Your task to perform on an android device: toggle improve location accuracy Image 0: 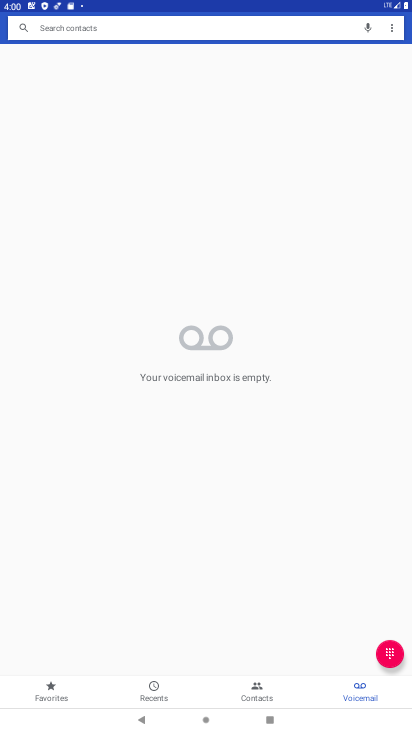
Step 0: press home button
Your task to perform on an android device: toggle improve location accuracy Image 1: 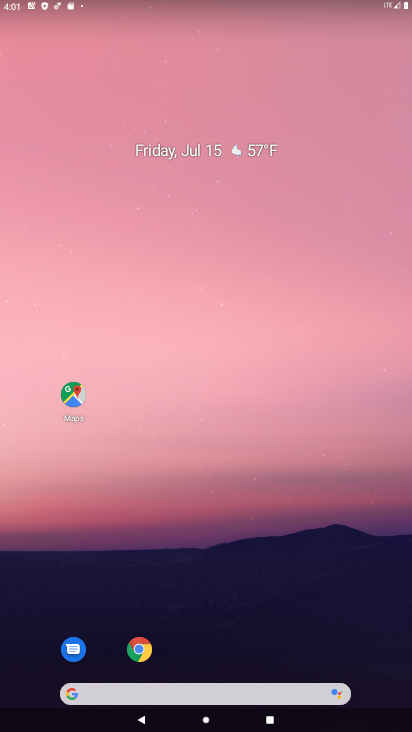
Step 1: drag from (231, 670) to (204, 175)
Your task to perform on an android device: toggle improve location accuracy Image 2: 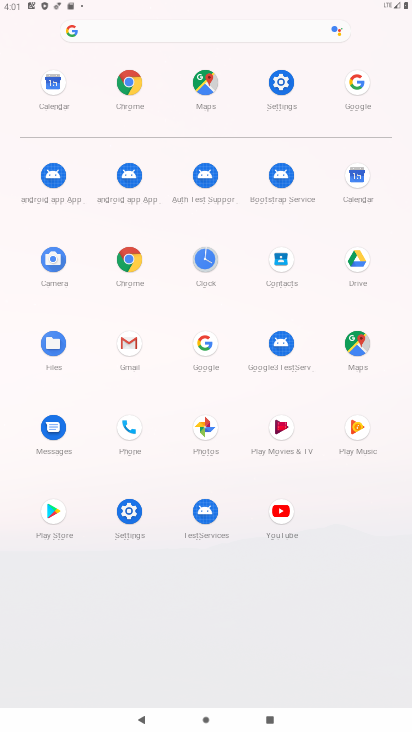
Step 2: click (282, 81)
Your task to perform on an android device: toggle improve location accuracy Image 3: 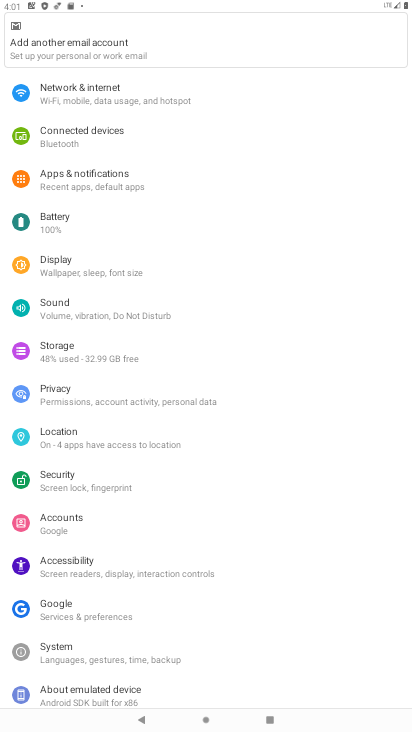
Step 3: click (54, 435)
Your task to perform on an android device: toggle improve location accuracy Image 4: 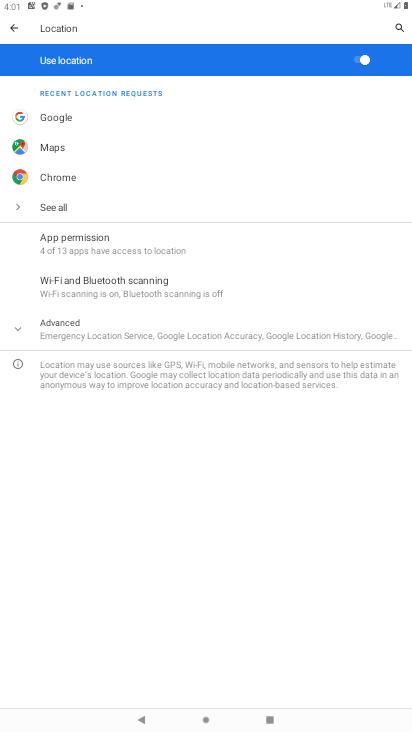
Step 4: click (107, 337)
Your task to perform on an android device: toggle improve location accuracy Image 5: 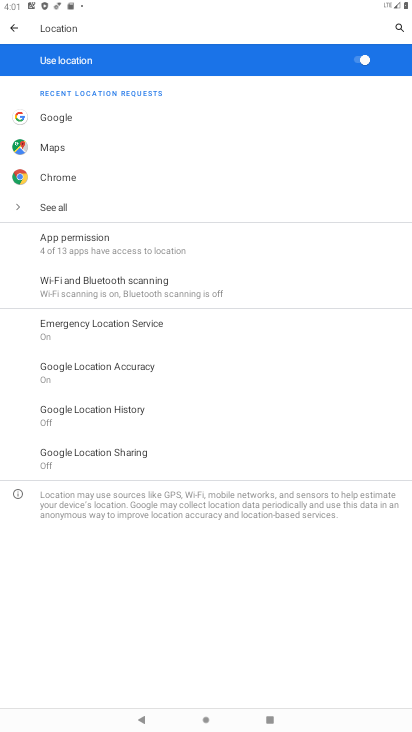
Step 5: click (99, 362)
Your task to perform on an android device: toggle improve location accuracy Image 6: 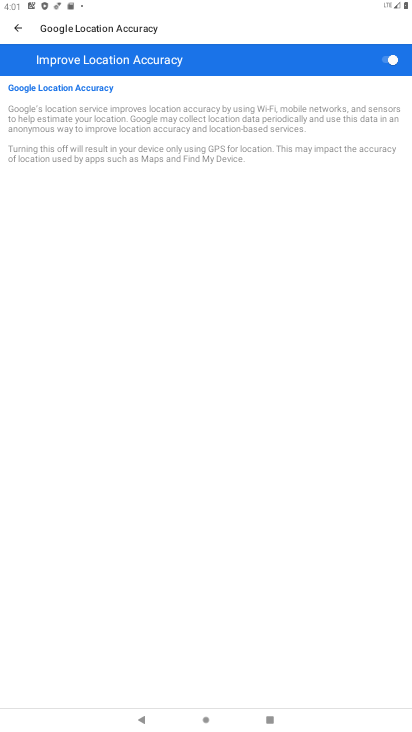
Step 6: task complete